Your task to perform on an android device: open app "File Manager" Image 0: 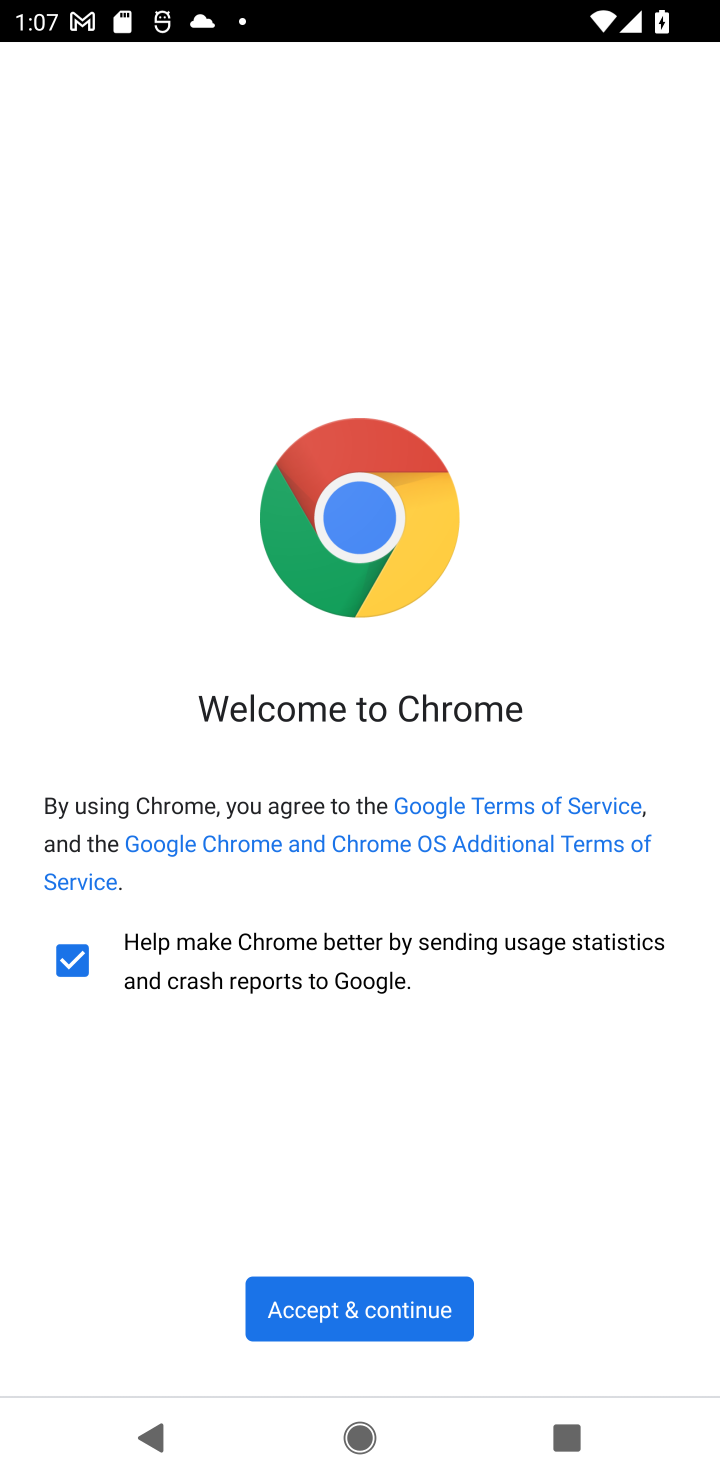
Step 0: press home button
Your task to perform on an android device: open app "File Manager" Image 1: 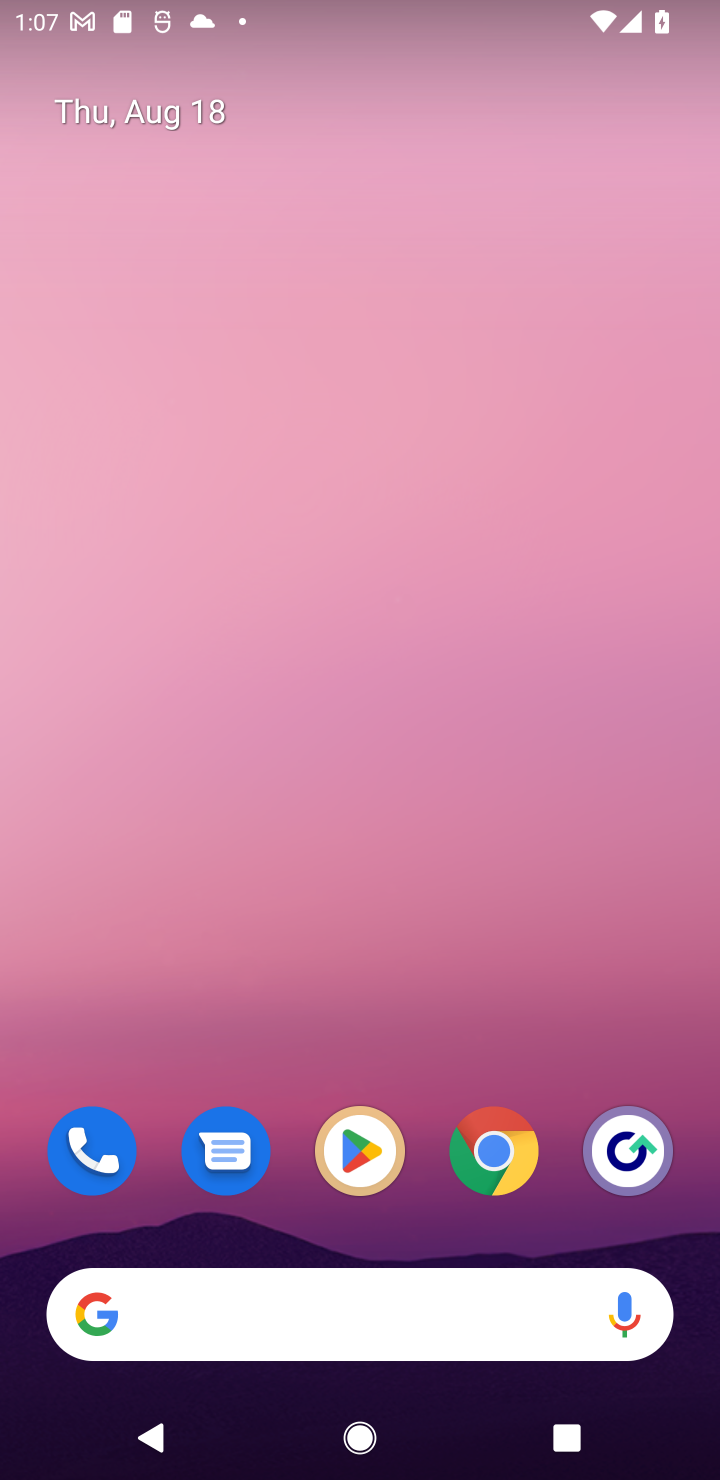
Step 1: click (337, 1161)
Your task to perform on an android device: open app "File Manager" Image 2: 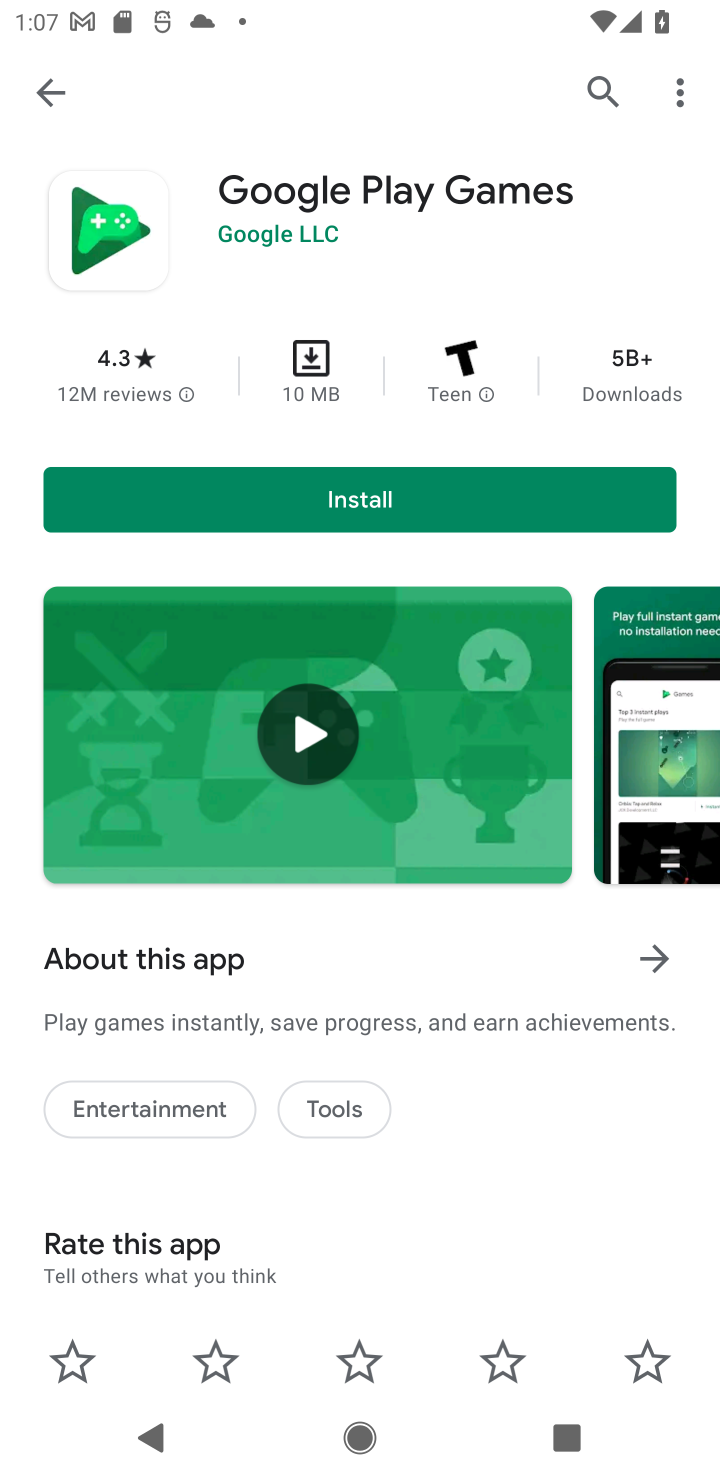
Step 2: click (41, 90)
Your task to perform on an android device: open app "File Manager" Image 3: 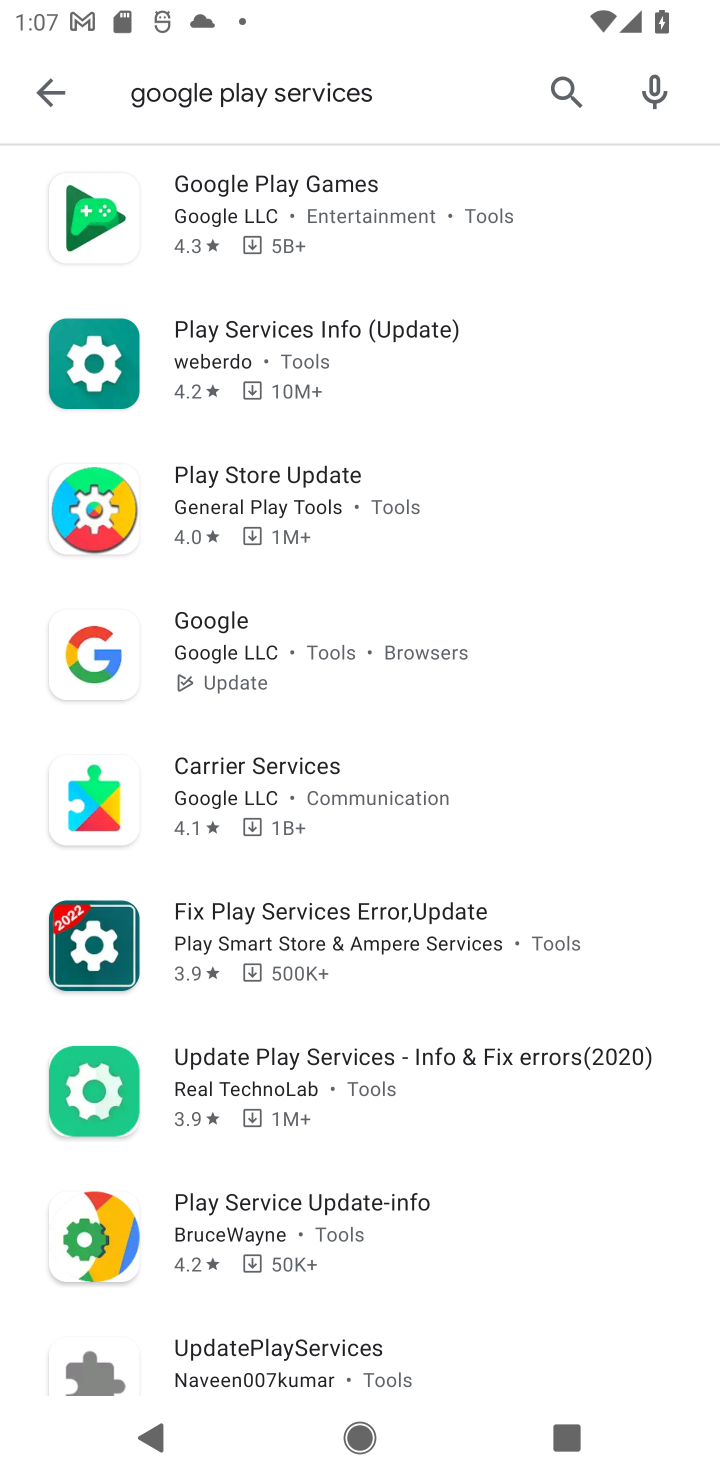
Step 3: click (43, 101)
Your task to perform on an android device: open app "File Manager" Image 4: 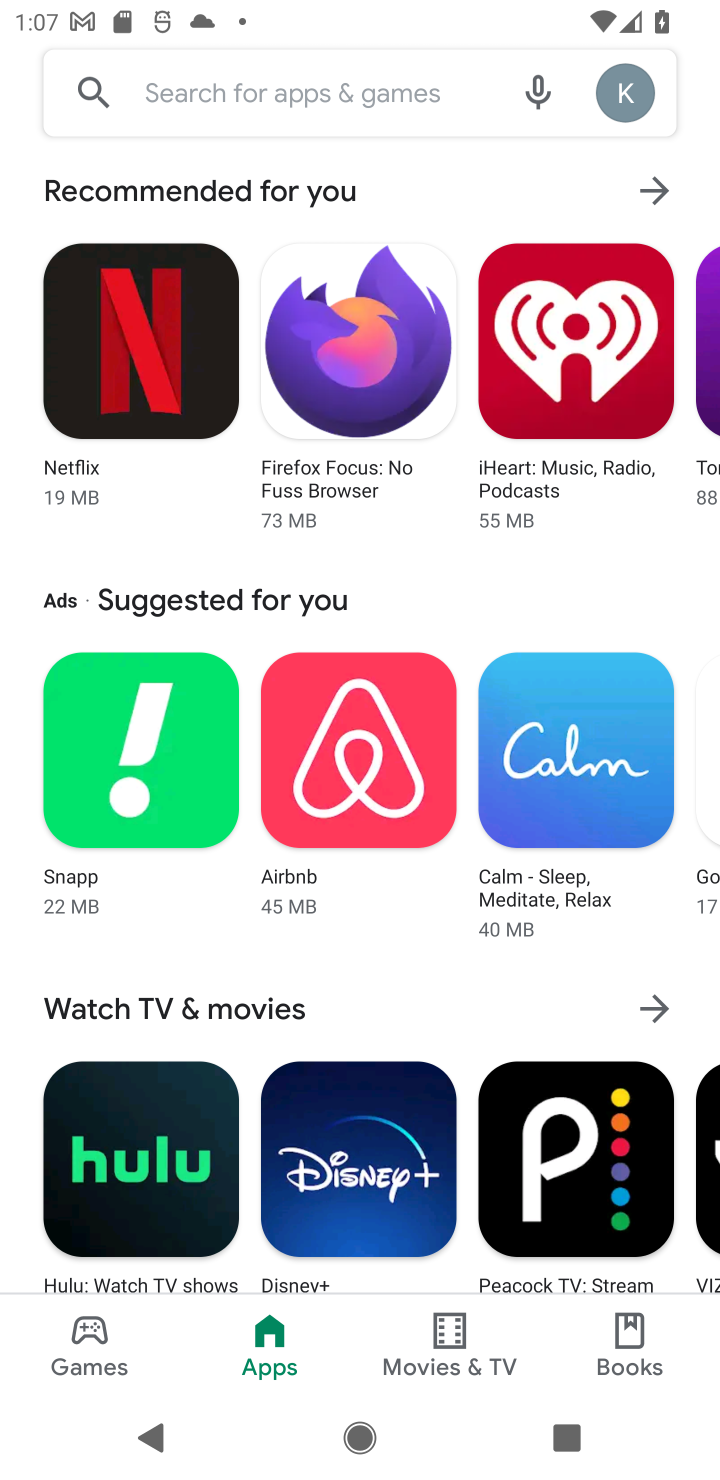
Step 4: click (297, 97)
Your task to perform on an android device: open app "File Manager" Image 5: 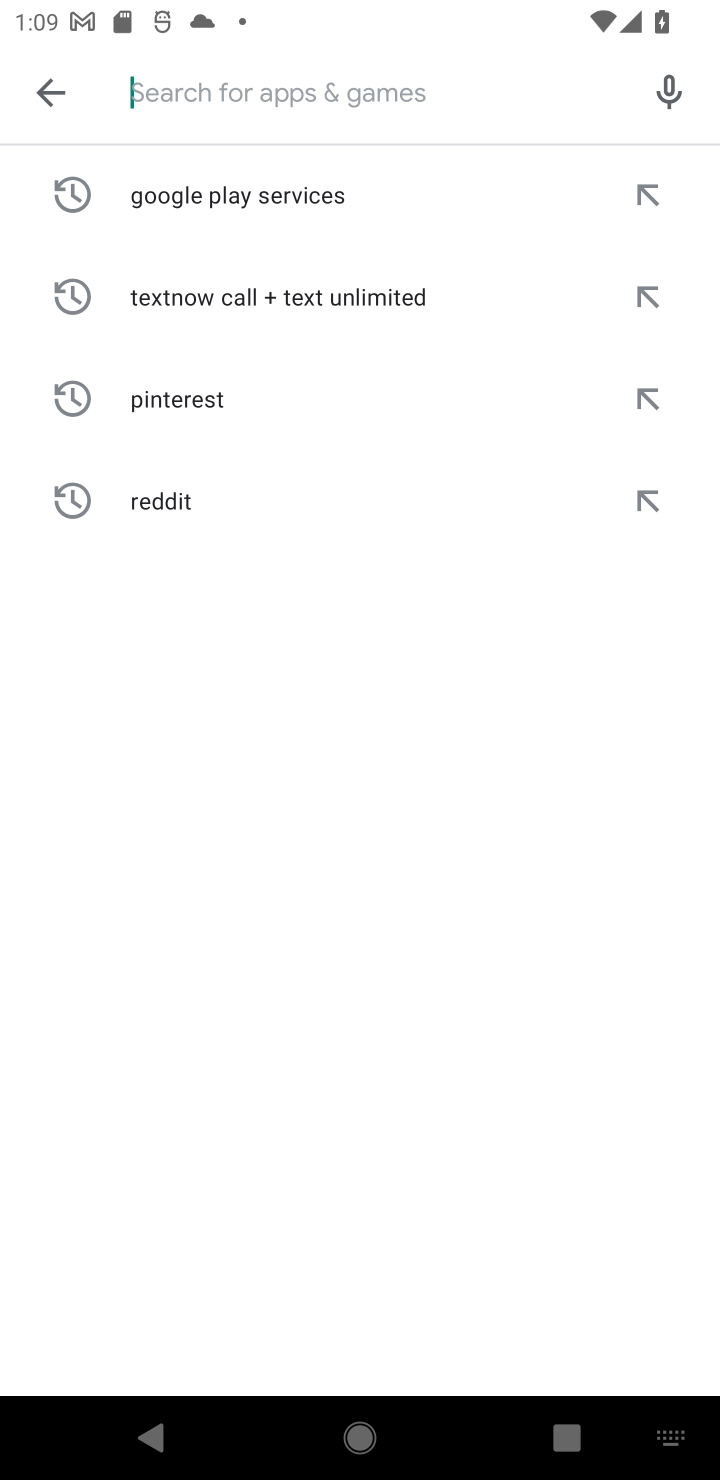
Step 5: type "File Manager"
Your task to perform on an android device: open app "File Manager" Image 6: 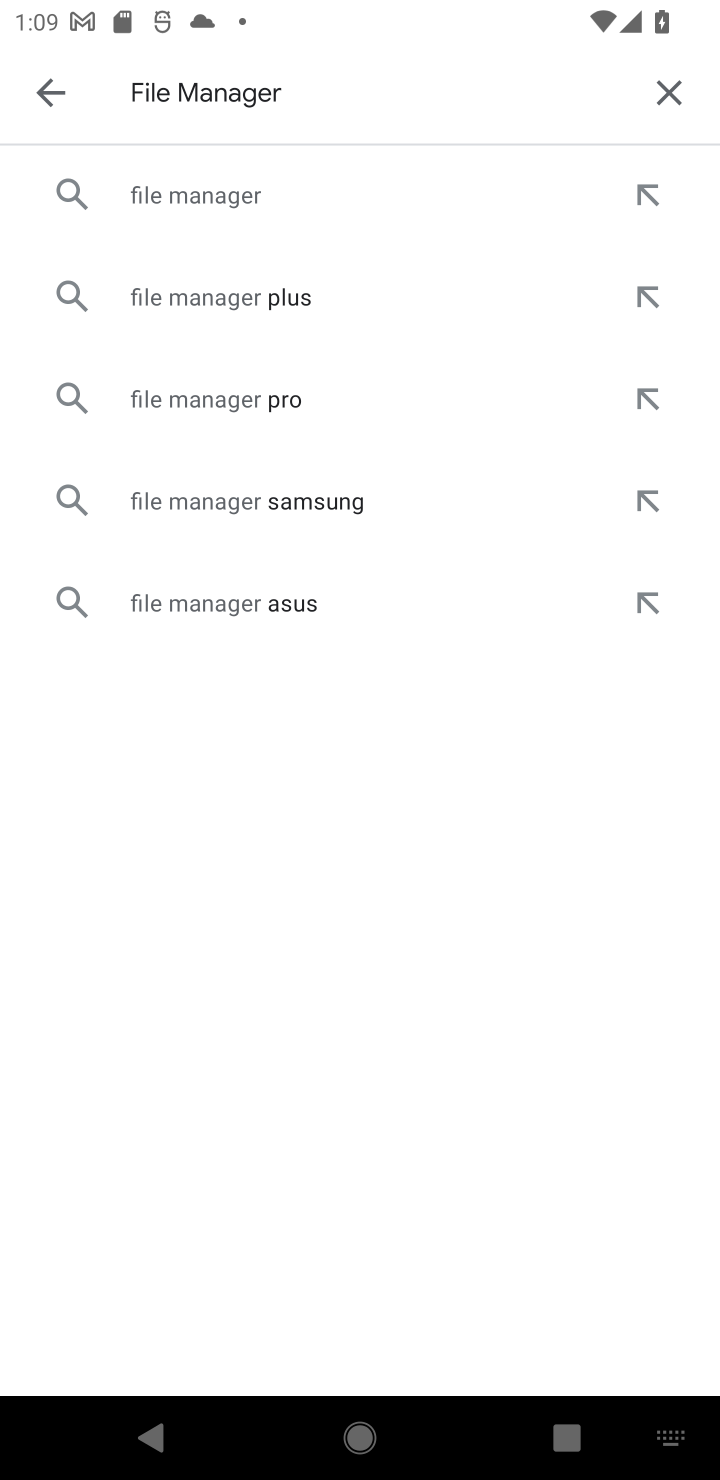
Step 6: click (216, 207)
Your task to perform on an android device: open app "File Manager" Image 7: 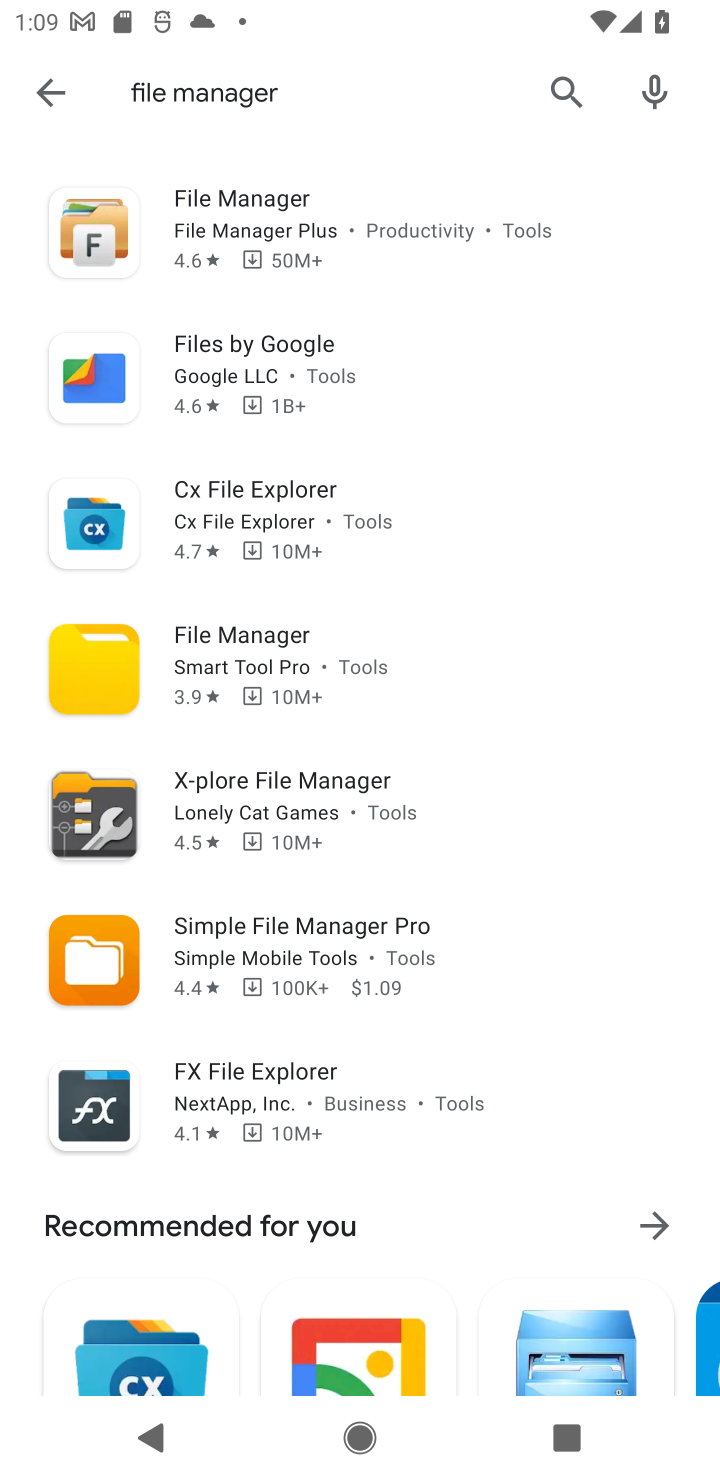
Step 7: click (214, 654)
Your task to perform on an android device: open app "File Manager" Image 8: 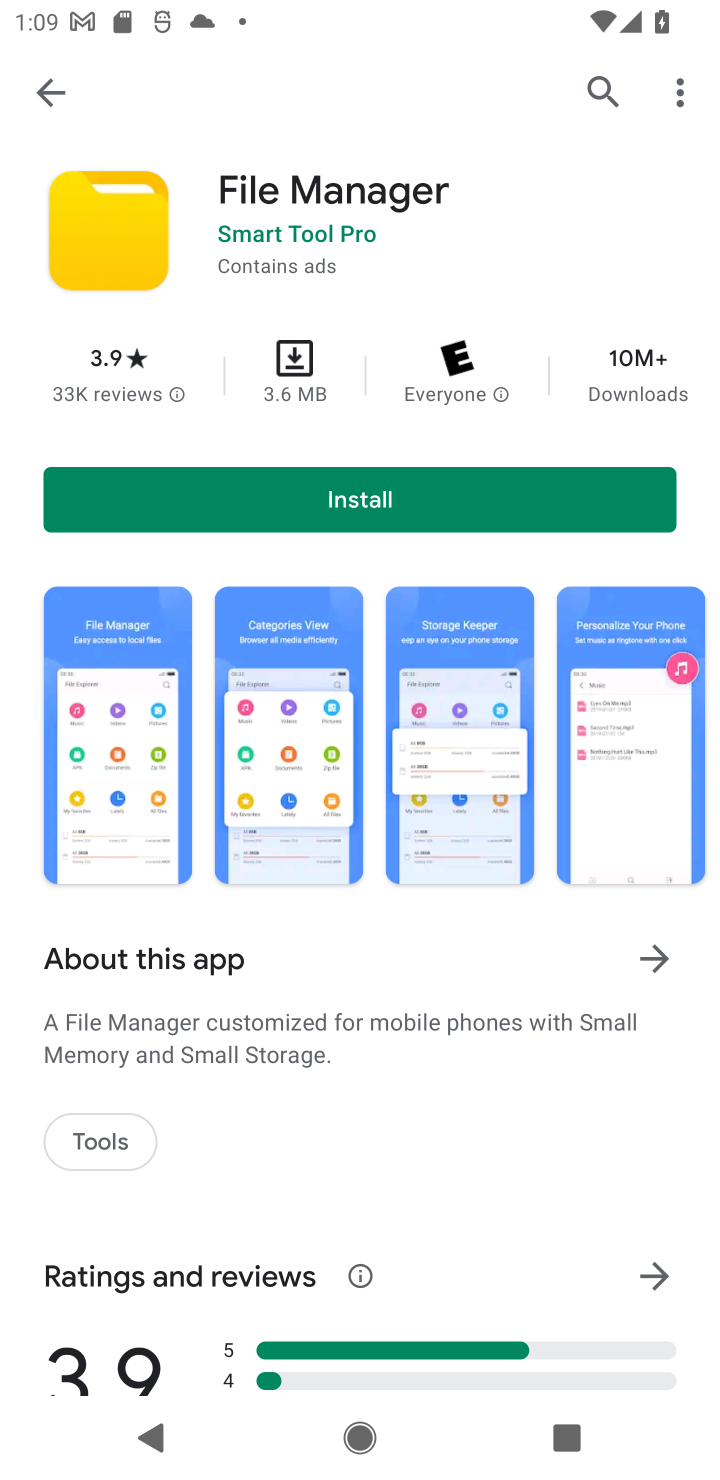
Step 8: click (350, 480)
Your task to perform on an android device: open app "File Manager" Image 9: 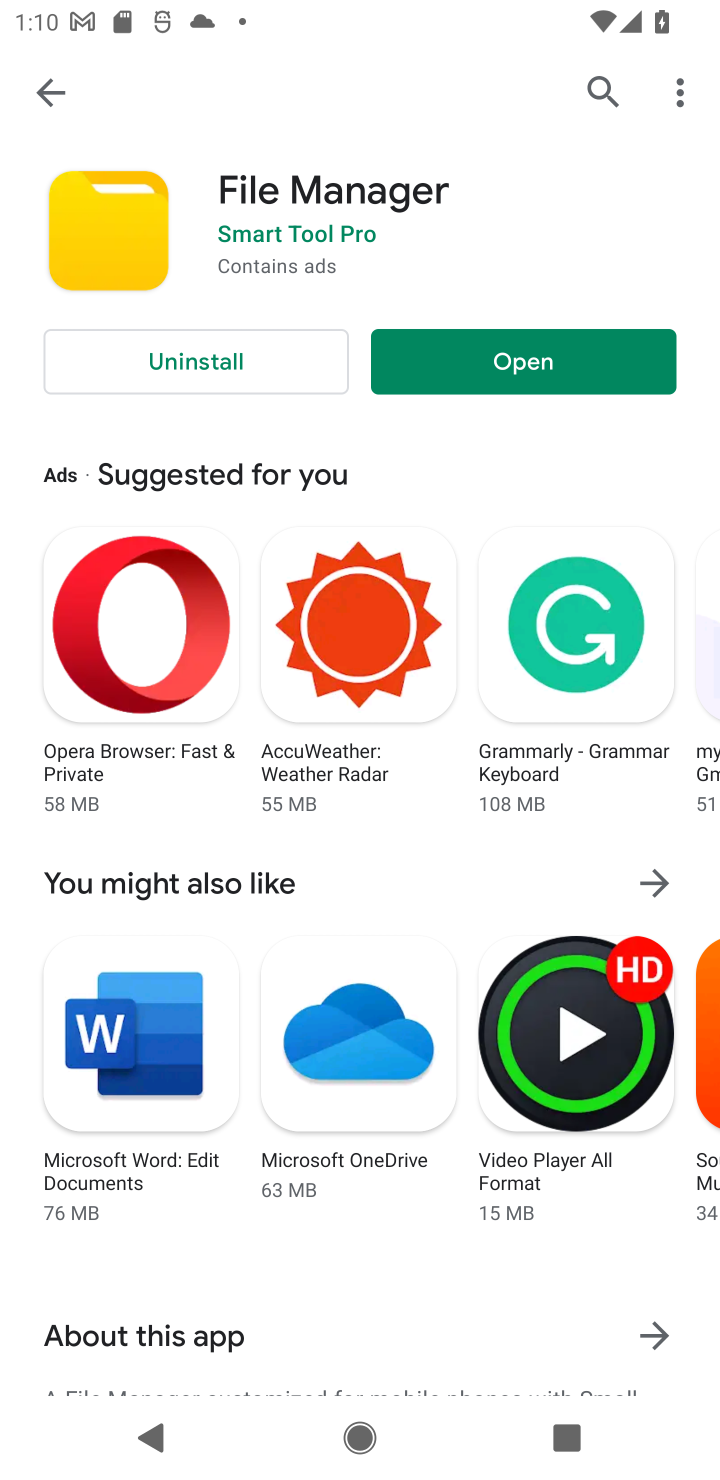
Step 9: click (557, 363)
Your task to perform on an android device: open app "File Manager" Image 10: 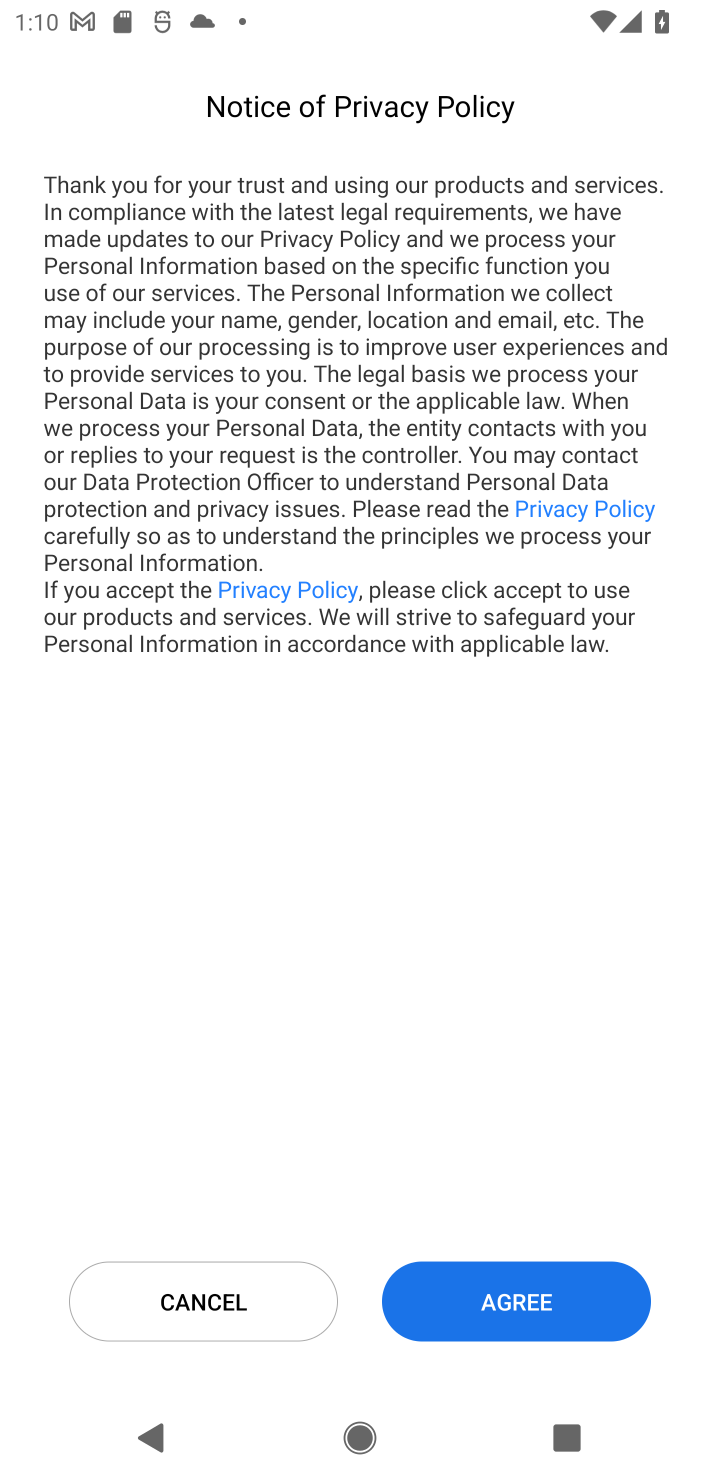
Step 10: click (544, 1281)
Your task to perform on an android device: open app "File Manager" Image 11: 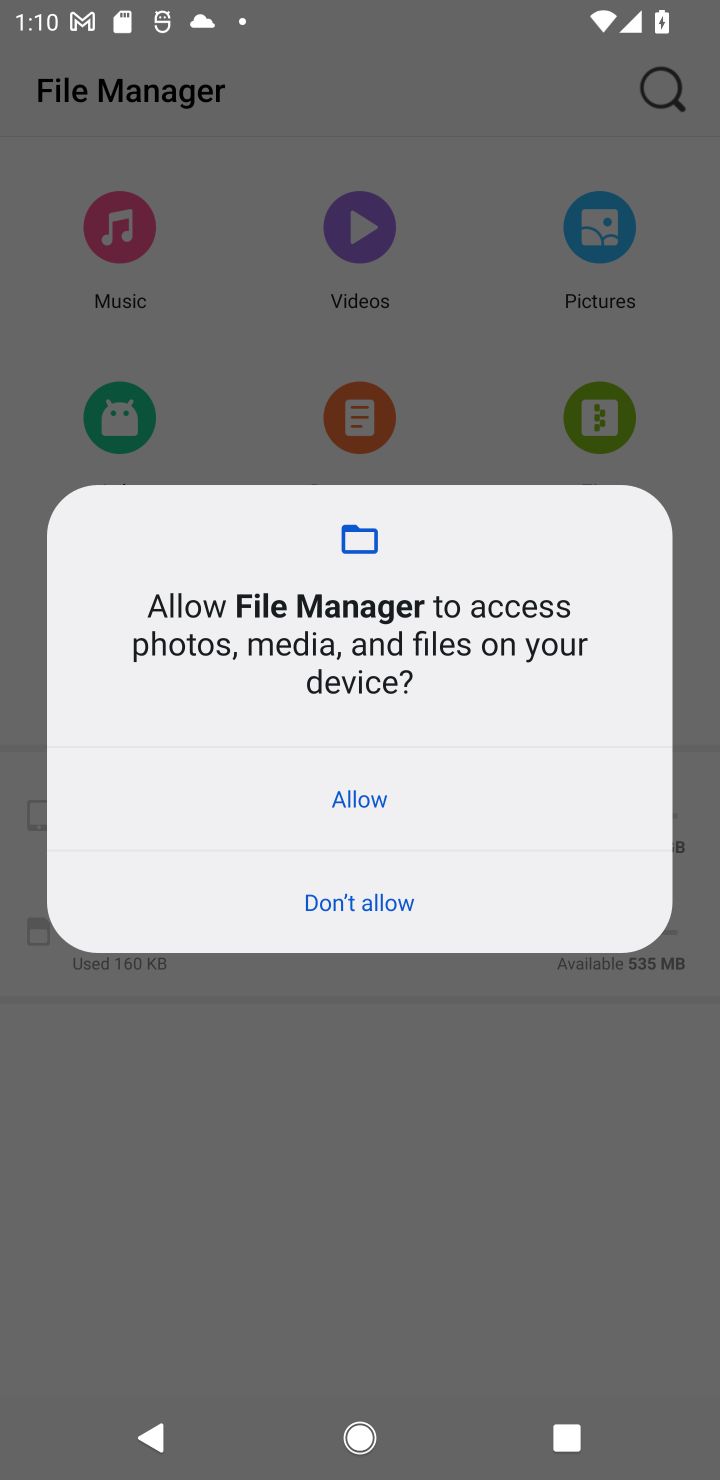
Step 11: click (347, 814)
Your task to perform on an android device: open app "File Manager" Image 12: 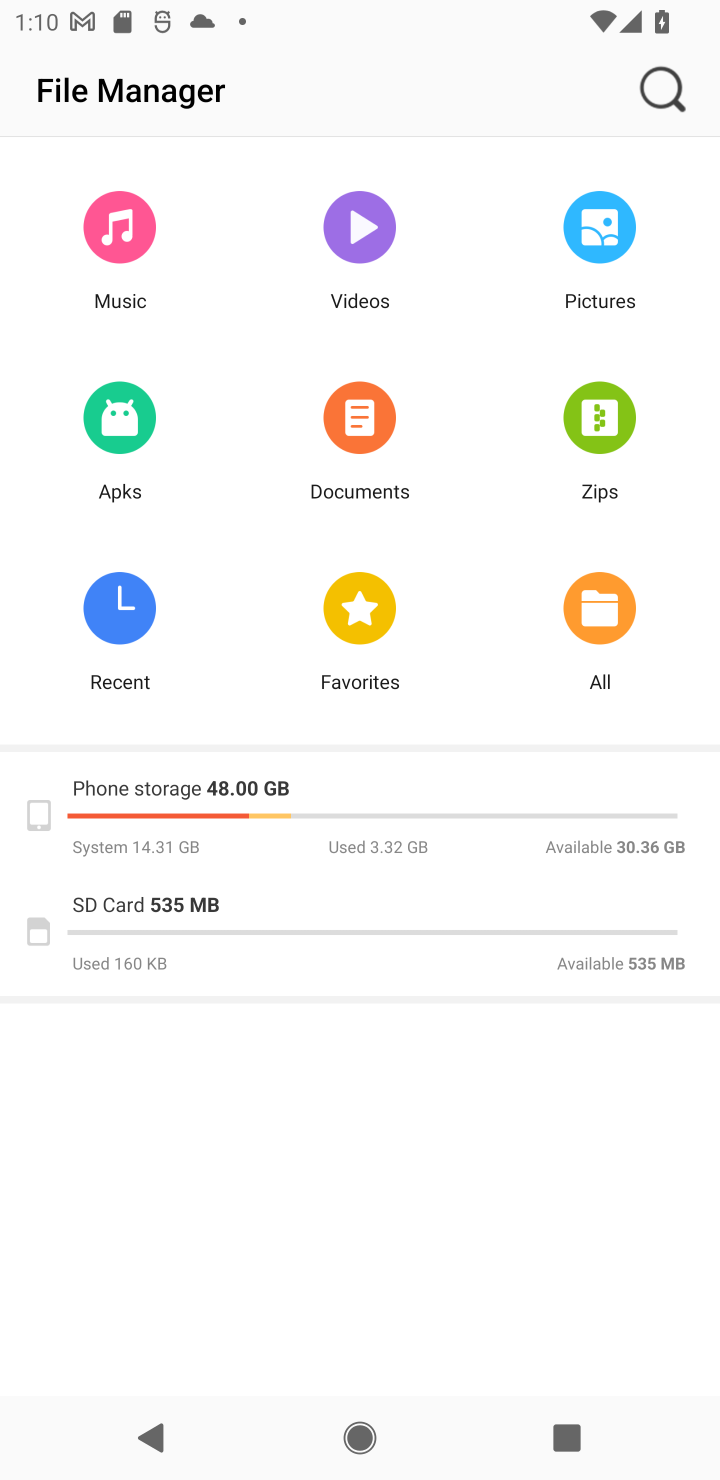
Step 12: task complete